Your task to perform on an android device: Go to display settings Image 0: 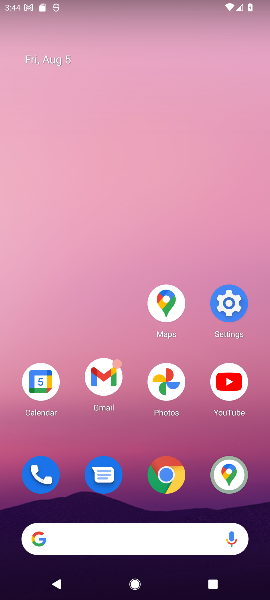
Step 0: click (236, 291)
Your task to perform on an android device: Go to display settings Image 1: 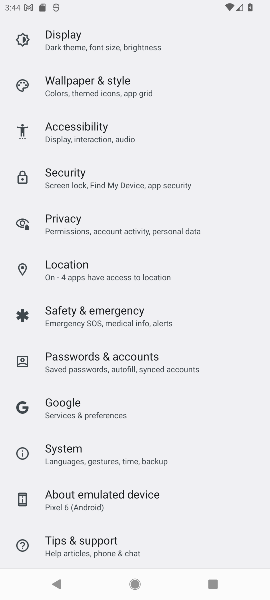
Step 1: click (95, 38)
Your task to perform on an android device: Go to display settings Image 2: 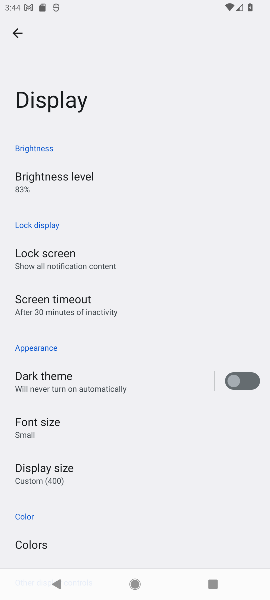
Step 2: task complete